Your task to perform on an android device: open app "NewsBreak: Local News & Alerts" Image 0: 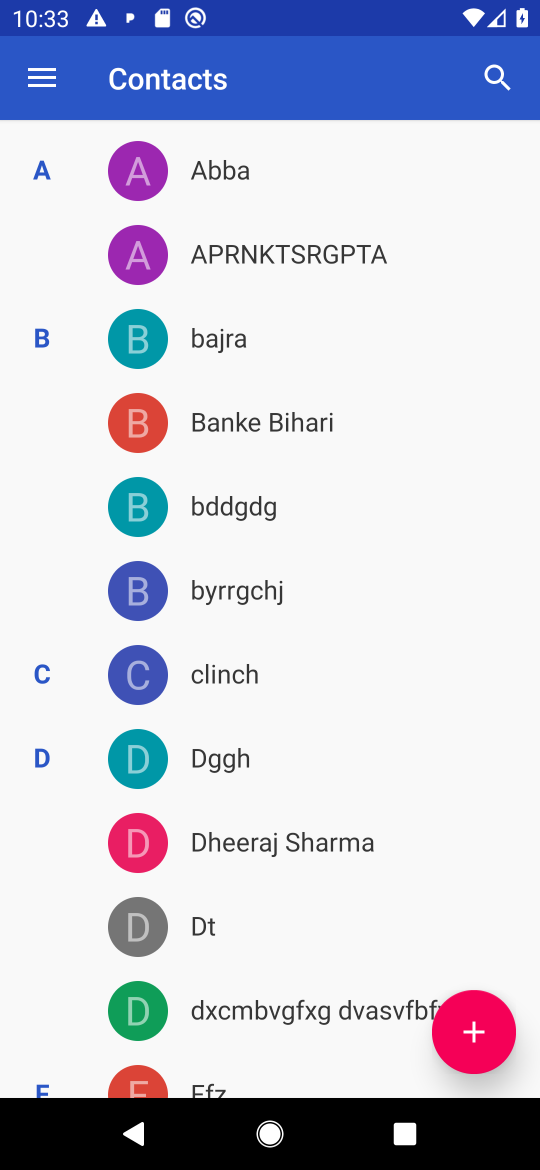
Step 0: press home button
Your task to perform on an android device: open app "NewsBreak: Local News & Alerts" Image 1: 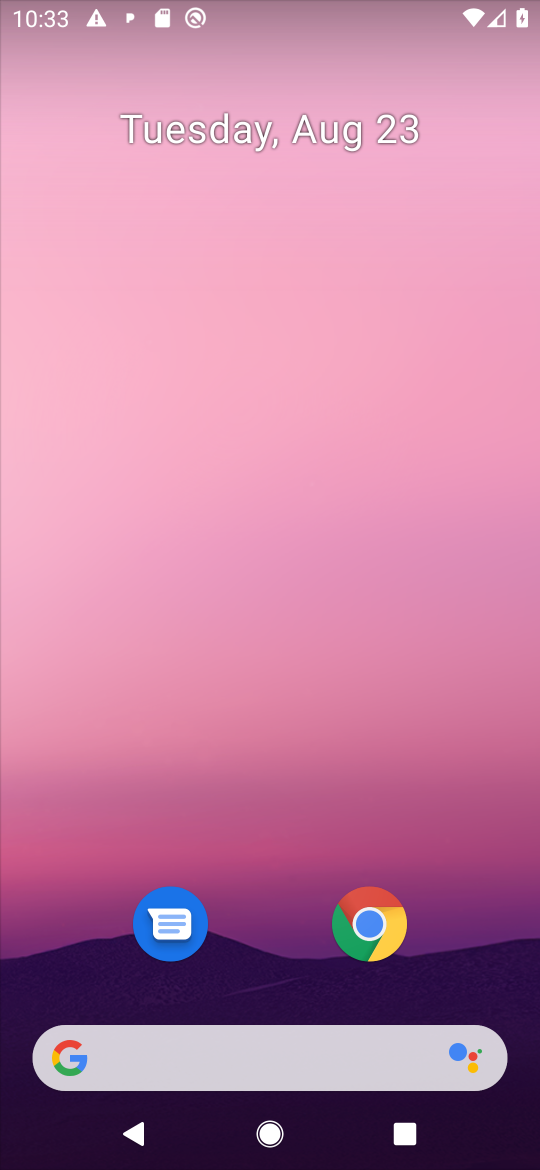
Step 1: drag from (480, 976) to (448, 152)
Your task to perform on an android device: open app "NewsBreak: Local News & Alerts" Image 2: 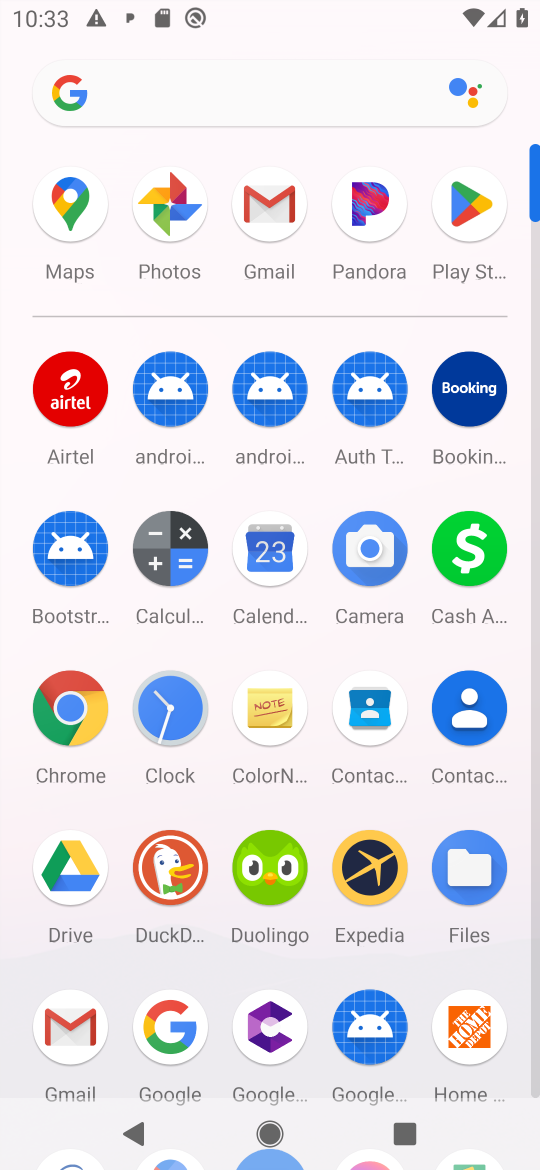
Step 2: click (474, 198)
Your task to perform on an android device: open app "NewsBreak: Local News & Alerts" Image 3: 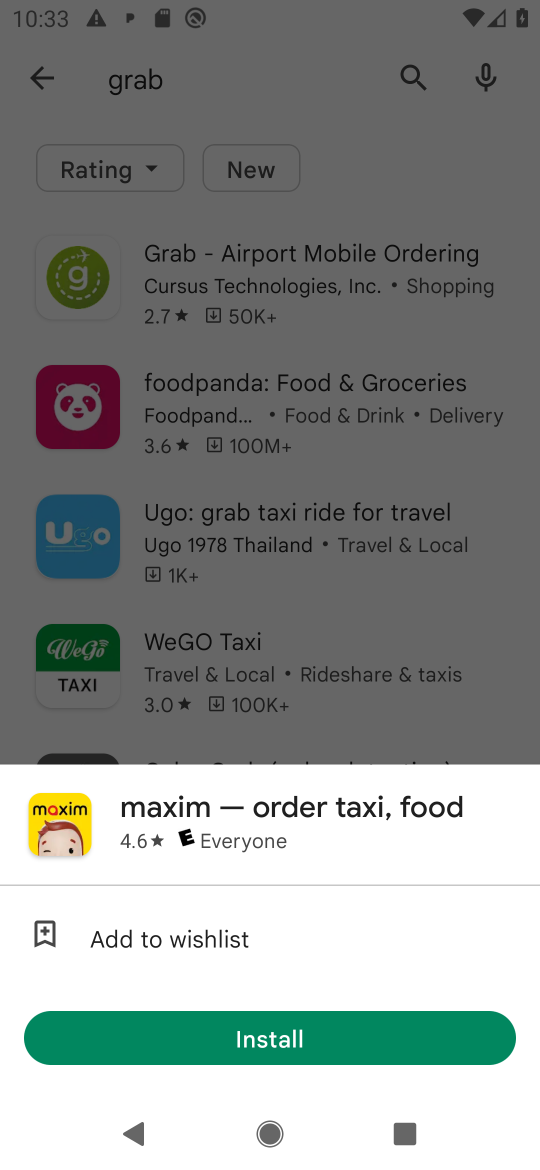
Step 3: press back button
Your task to perform on an android device: open app "NewsBreak: Local News & Alerts" Image 4: 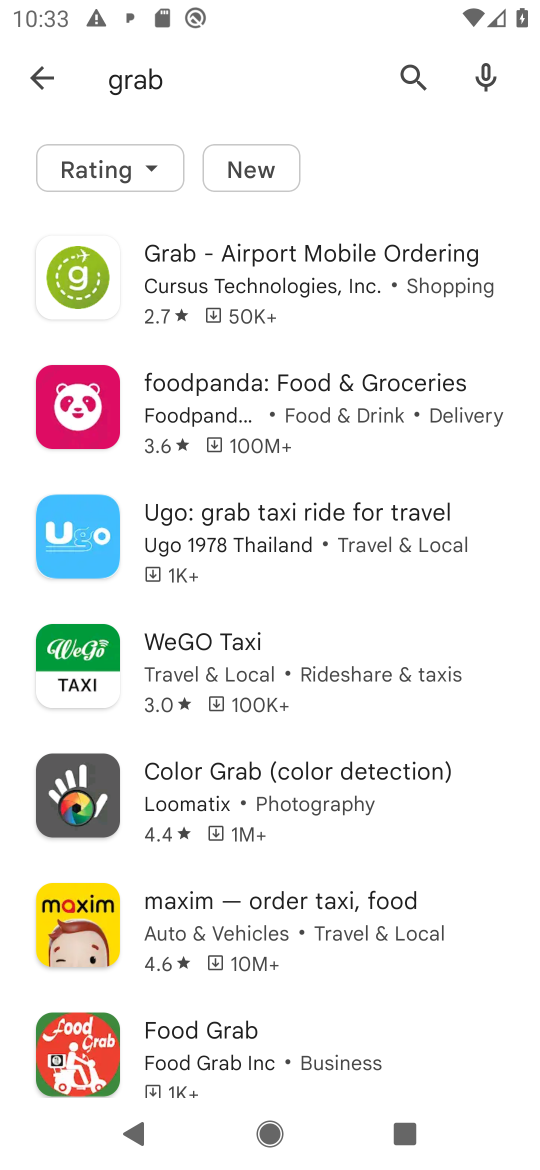
Step 4: press back button
Your task to perform on an android device: open app "NewsBreak: Local News & Alerts" Image 5: 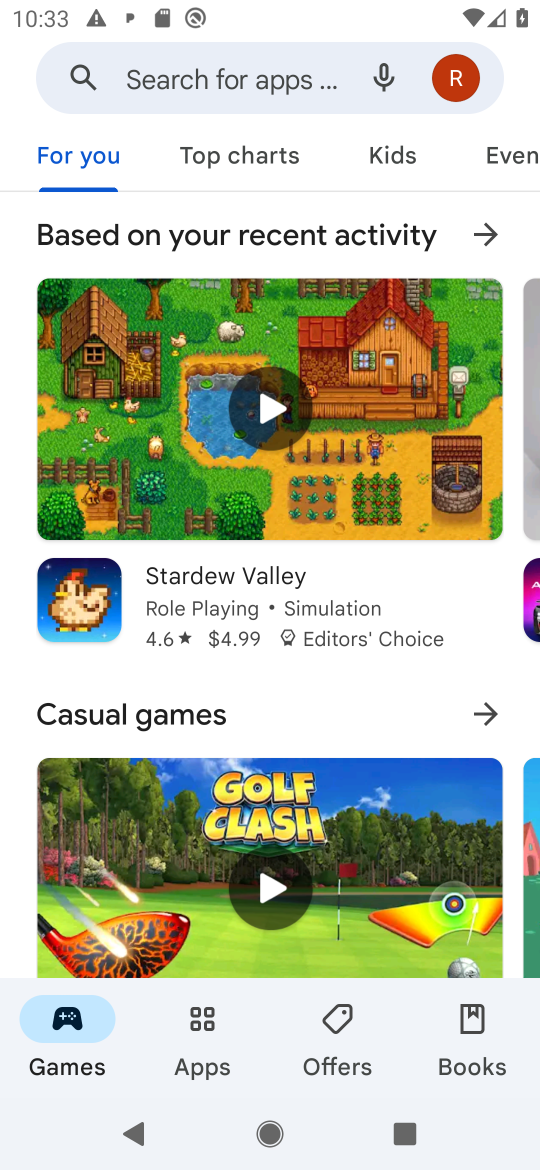
Step 5: click (258, 75)
Your task to perform on an android device: open app "NewsBreak: Local News & Alerts" Image 6: 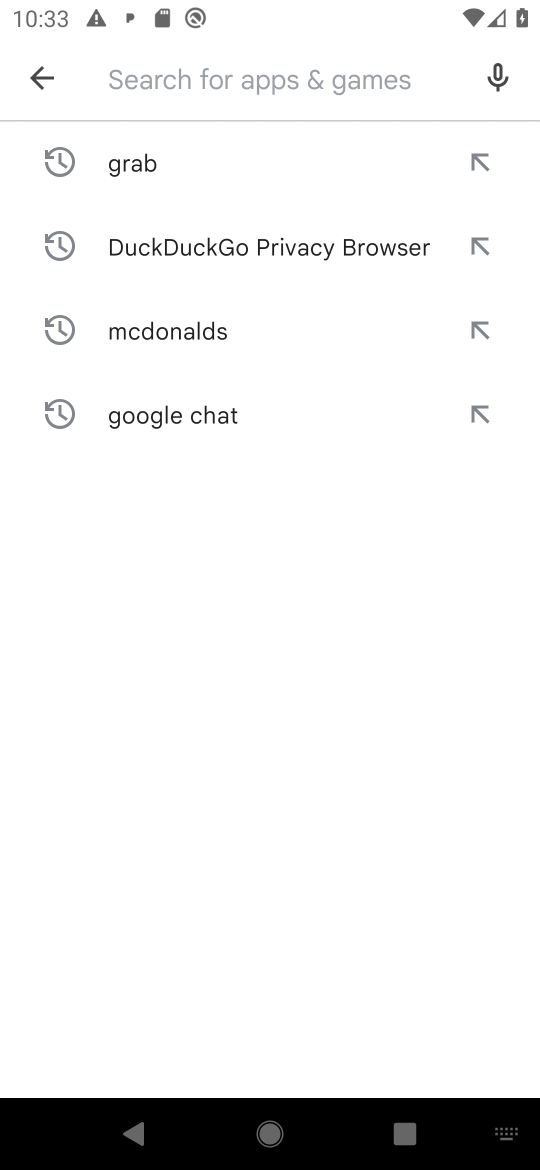
Step 6: press enter
Your task to perform on an android device: open app "NewsBreak: Local News & Alerts" Image 7: 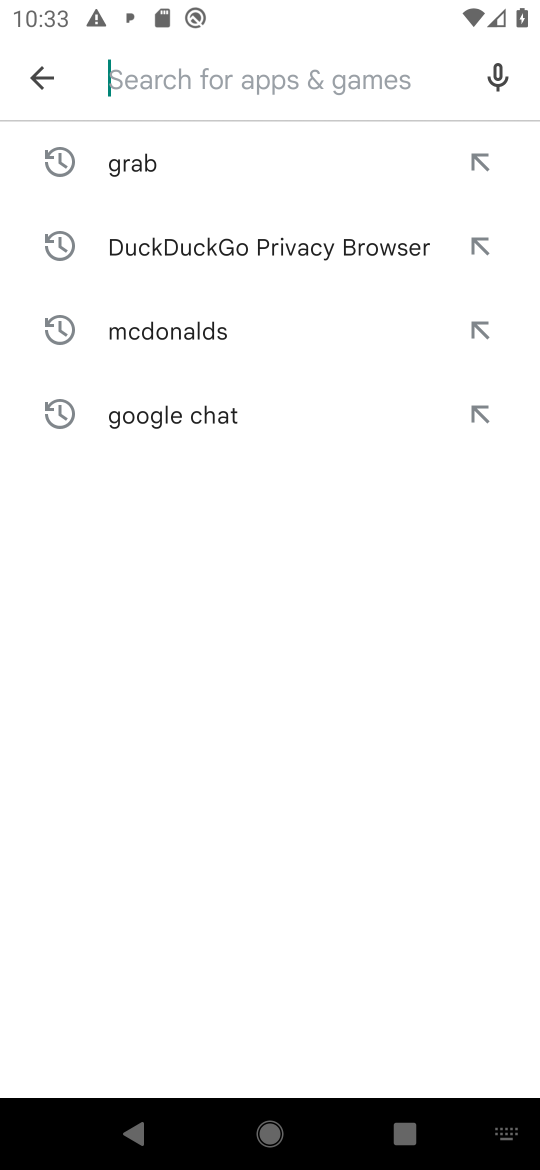
Step 7: type "NewsBreak: Local News & Alerts"
Your task to perform on an android device: open app "NewsBreak: Local News & Alerts" Image 8: 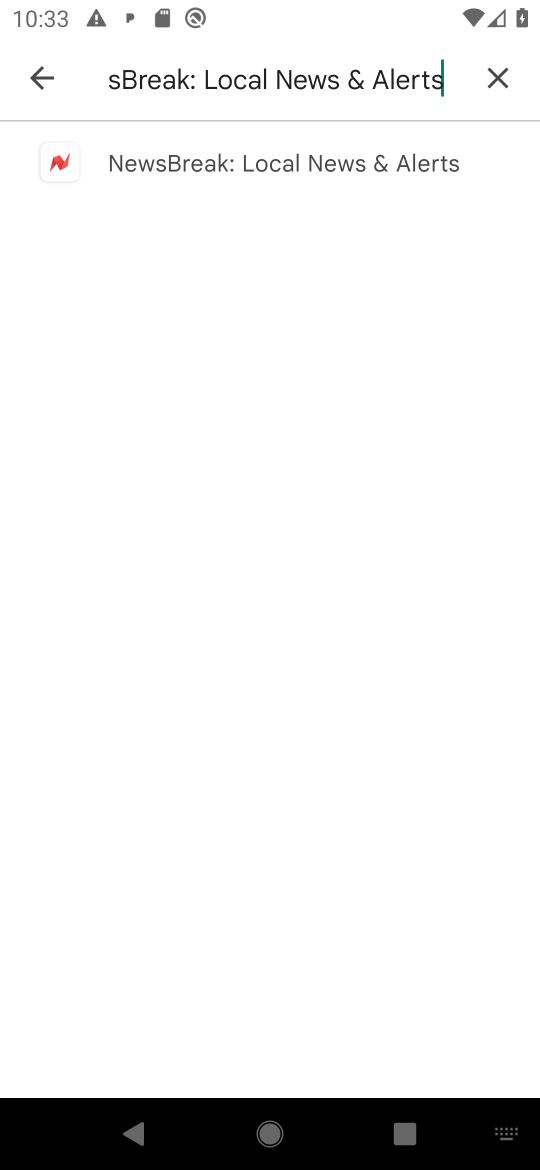
Step 8: click (406, 163)
Your task to perform on an android device: open app "NewsBreak: Local News & Alerts" Image 9: 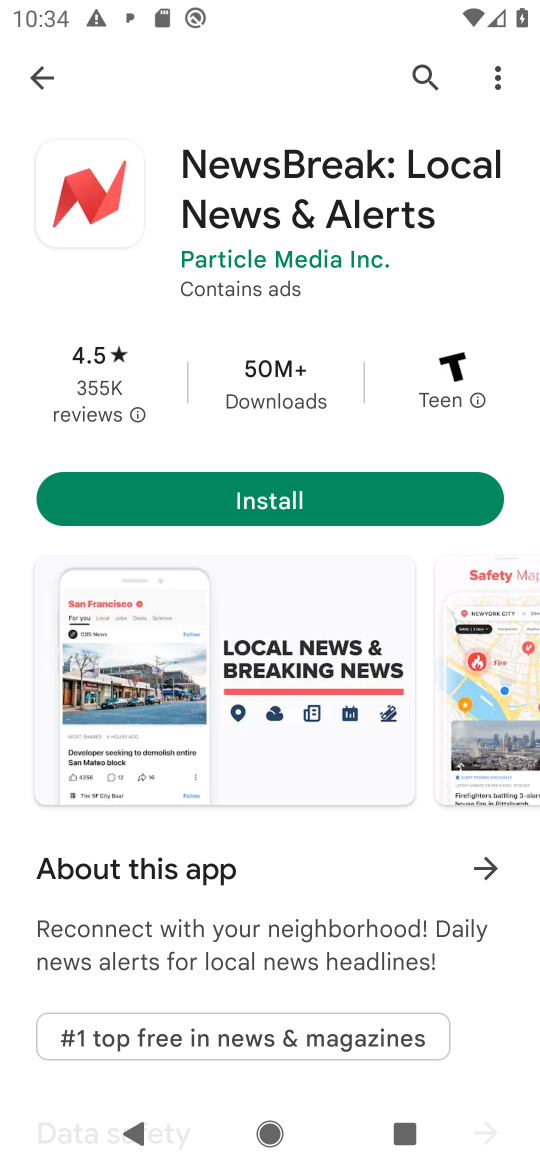
Step 9: task complete